Your task to perform on an android device: Open Reddit.com Image 0: 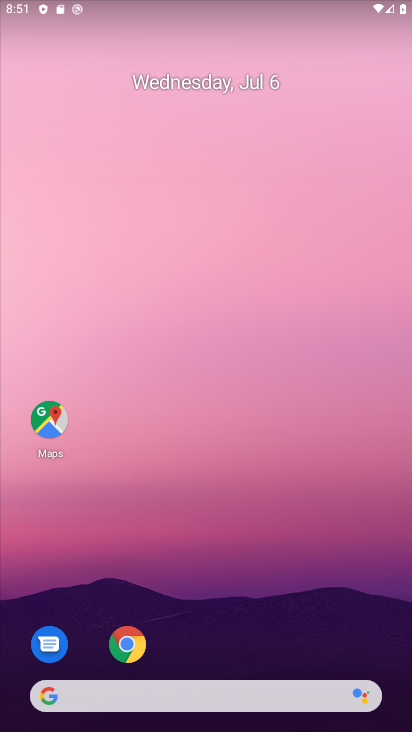
Step 0: drag from (194, 611) to (189, 124)
Your task to perform on an android device: Open Reddit.com Image 1: 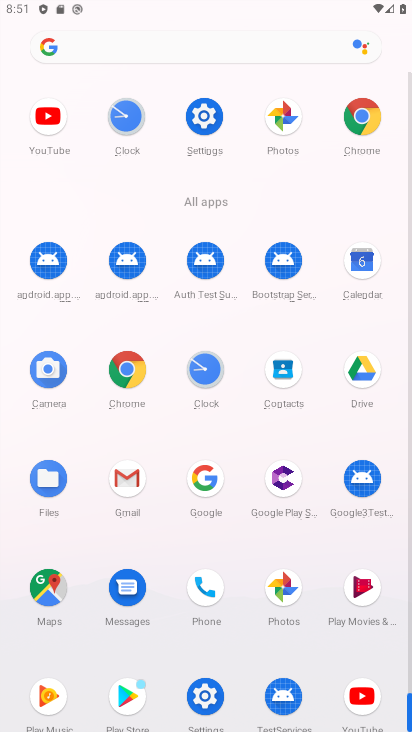
Step 1: click (371, 129)
Your task to perform on an android device: Open Reddit.com Image 2: 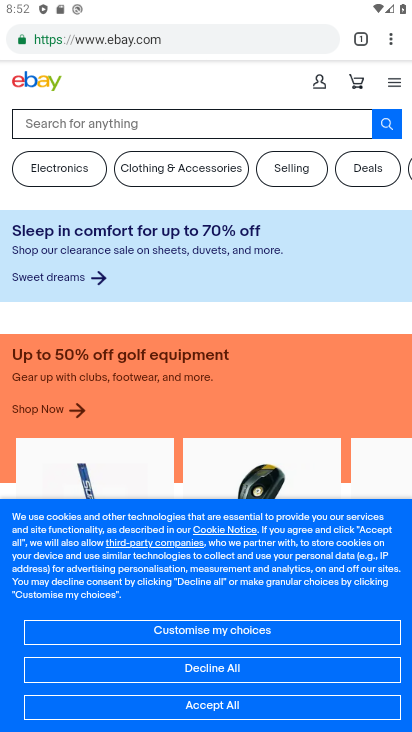
Step 2: click (396, 41)
Your task to perform on an android device: Open Reddit.com Image 3: 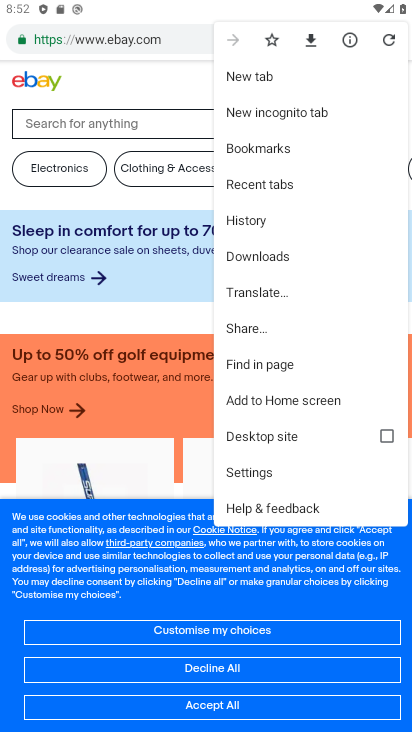
Step 3: click (177, 90)
Your task to perform on an android device: Open Reddit.com Image 4: 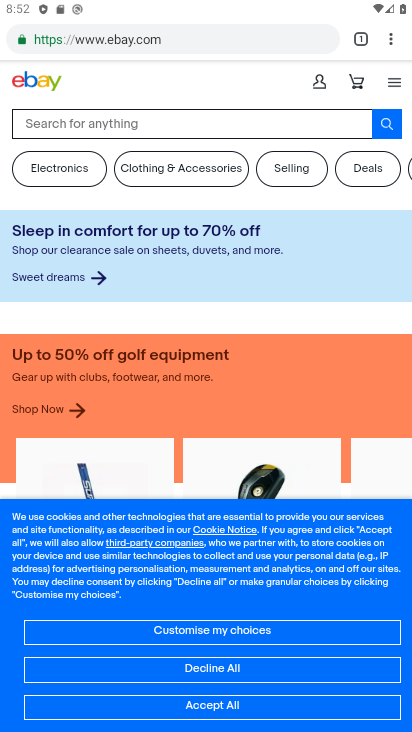
Step 4: click (249, 38)
Your task to perform on an android device: Open Reddit.com Image 5: 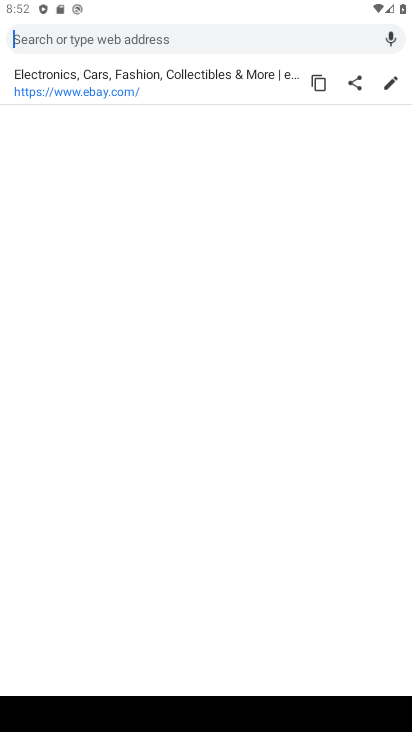
Step 5: type "reddit.com"
Your task to perform on an android device: Open Reddit.com Image 6: 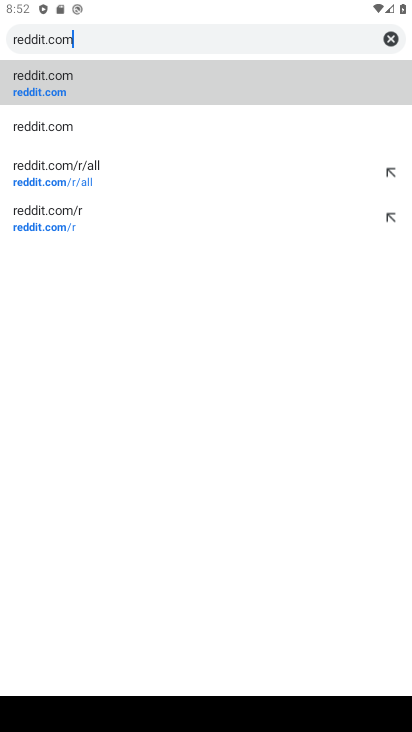
Step 6: click (303, 71)
Your task to perform on an android device: Open Reddit.com Image 7: 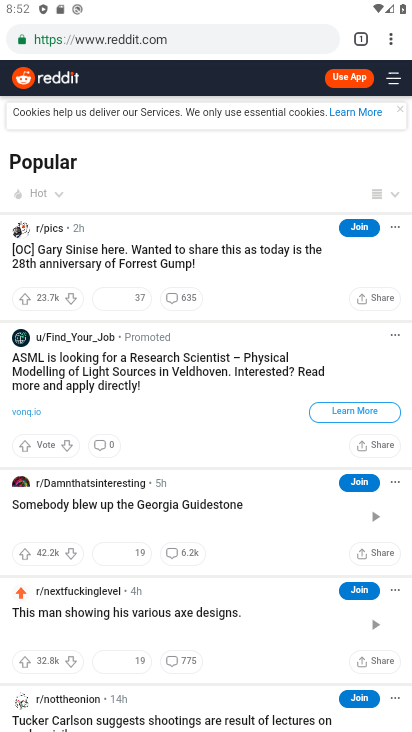
Step 7: task complete